Your task to perform on an android device: Open calendar and show me the first week of next month Image 0: 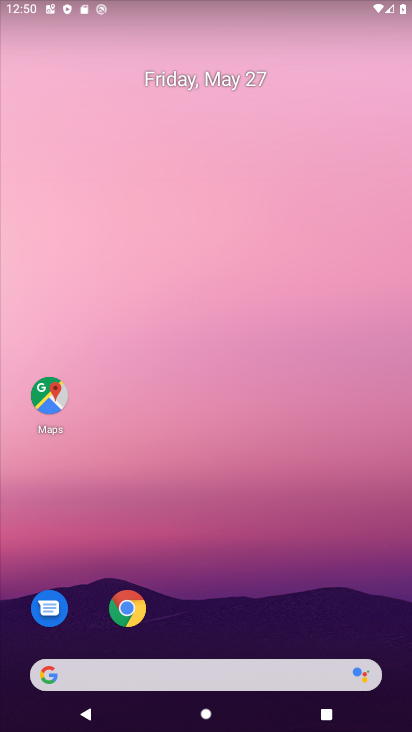
Step 0: drag from (297, 591) to (342, 182)
Your task to perform on an android device: Open calendar and show me the first week of next month Image 1: 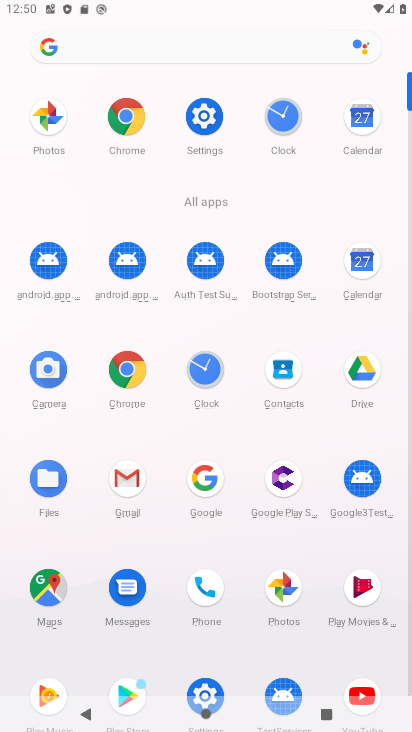
Step 1: click (372, 261)
Your task to perform on an android device: Open calendar and show me the first week of next month Image 2: 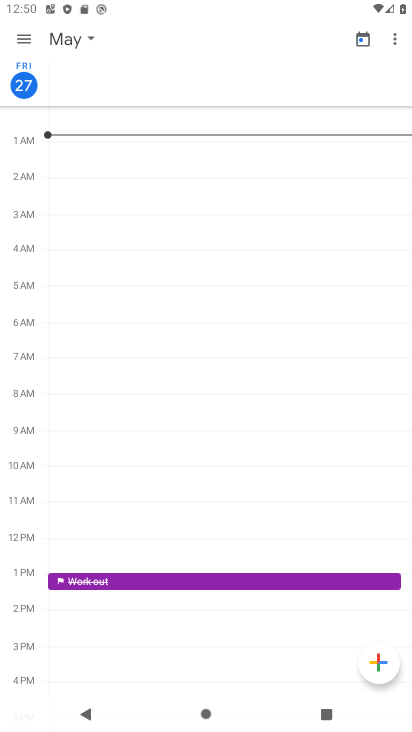
Step 2: click (79, 34)
Your task to perform on an android device: Open calendar and show me the first week of next month Image 3: 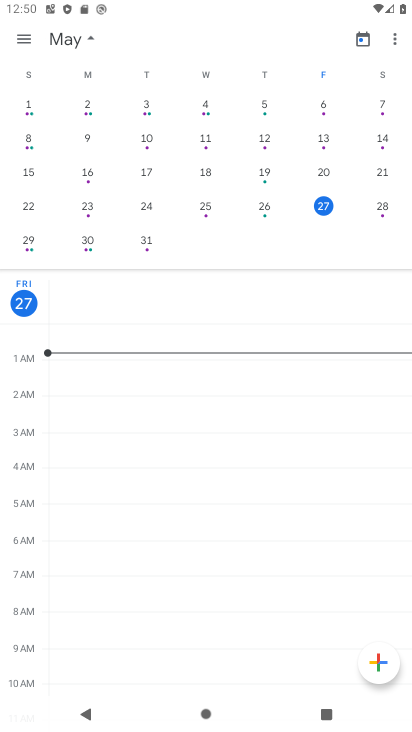
Step 3: task complete